Your task to perform on an android device: stop showing notifications on the lock screen Image 0: 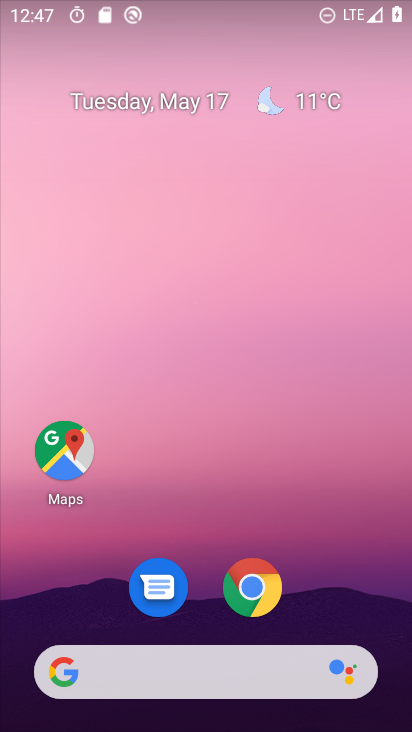
Step 0: drag from (211, 610) to (216, 141)
Your task to perform on an android device: stop showing notifications on the lock screen Image 1: 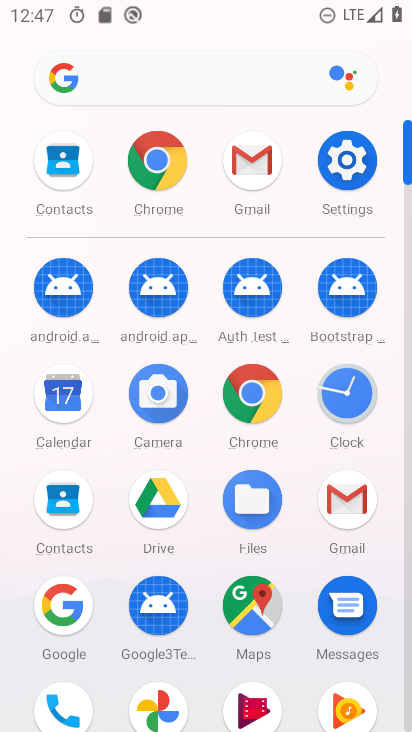
Step 1: click (343, 165)
Your task to perform on an android device: stop showing notifications on the lock screen Image 2: 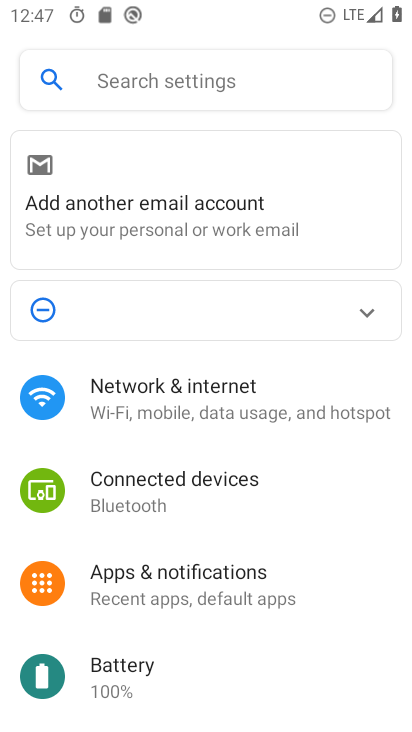
Step 2: click (188, 580)
Your task to perform on an android device: stop showing notifications on the lock screen Image 3: 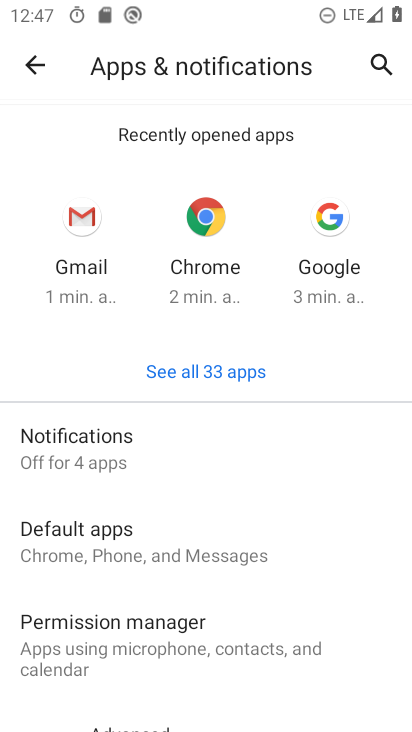
Step 3: click (91, 432)
Your task to perform on an android device: stop showing notifications on the lock screen Image 4: 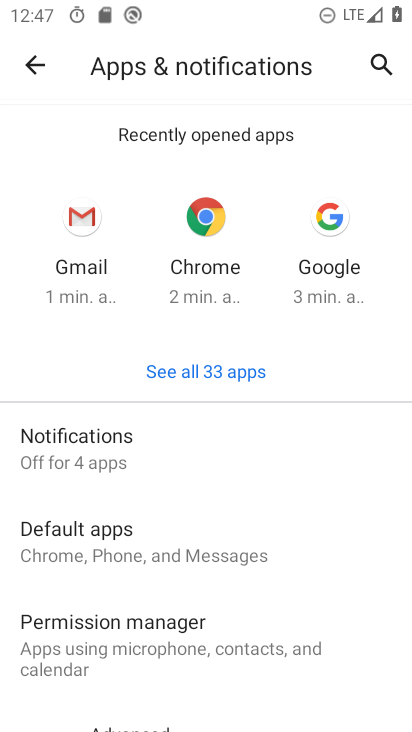
Step 4: click (90, 432)
Your task to perform on an android device: stop showing notifications on the lock screen Image 5: 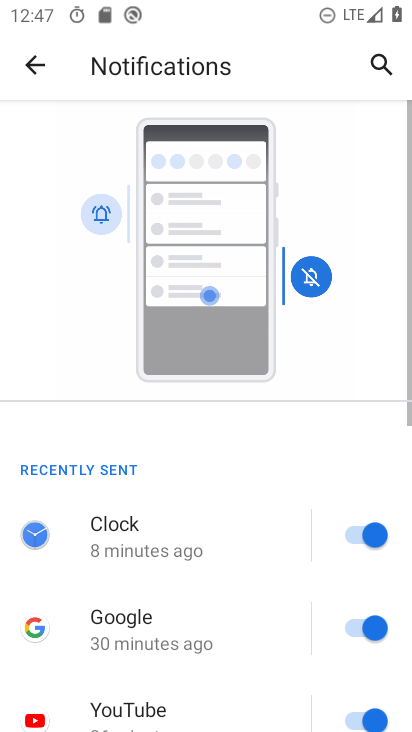
Step 5: drag from (205, 553) to (280, 11)
Your task to perform on an android device: stop showing notifications on the lock screen Image 6: 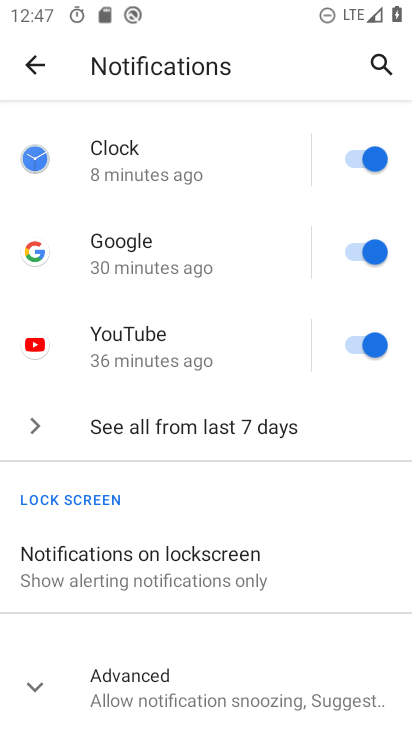
Step 6: click (173, 555)
Your task to perform on an android device: stop showing notifications on the lock screen Image 7: 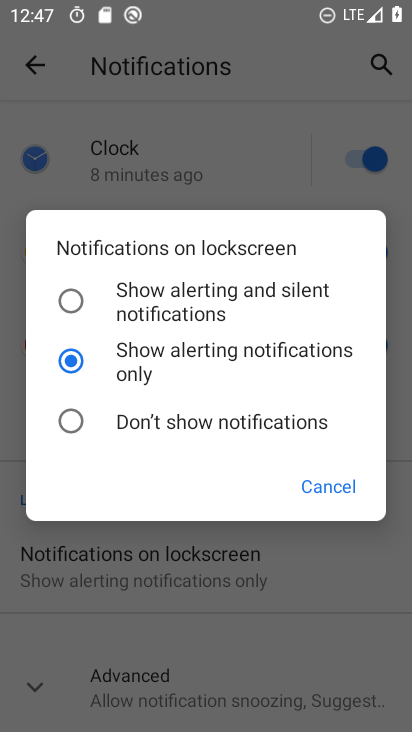
Step 7: click (140, 418)
Your task to perform on an android device: stop showing notifications on the lock screen Image 8: 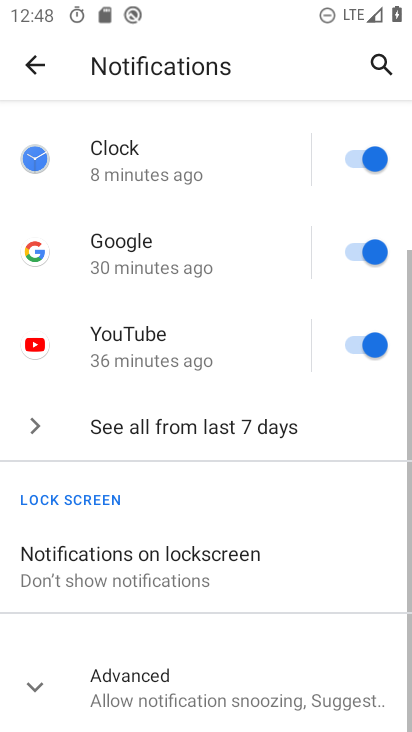
Step 8: task complete